Your task to perform on an android device: Open Google Maps and go to "Timeline" Image 0: 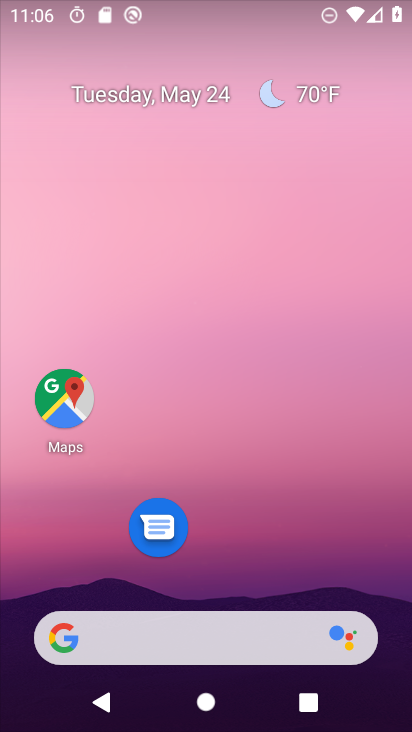
Step 0: drag from (263, 557) to (225, 186)
Your task to perform on an android device: Open Google Maps and go to "Timeline" Image 1: 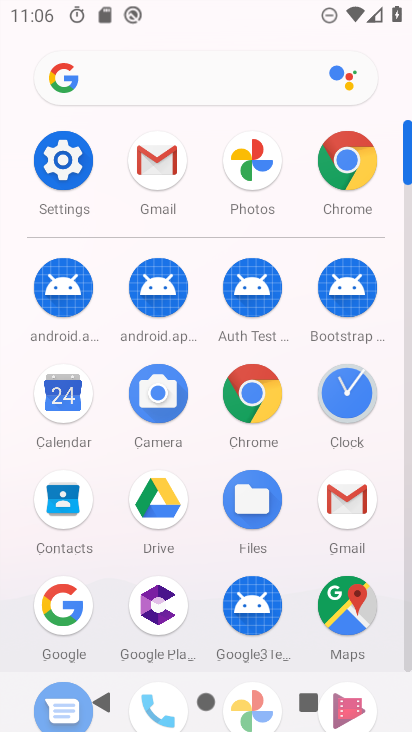
Step 1: click (360, 621)
Your task to perform on an android device: Open Google Maps and go to "Timeline" Image 2: 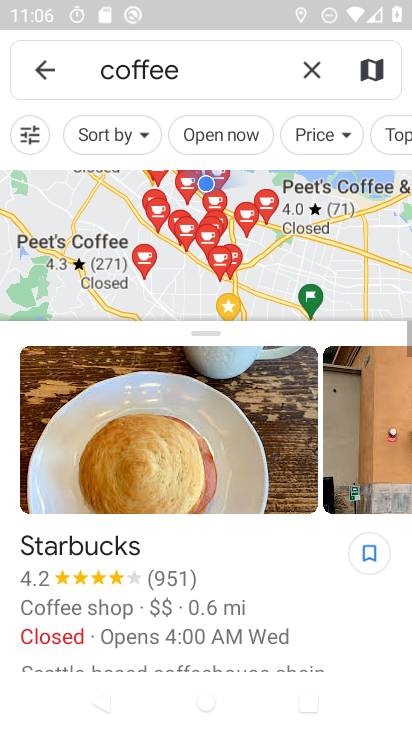
Step 2: click (299, 75)
Your task to perform on an android device: Open Google Maps and go to "Timeline" Image 3: 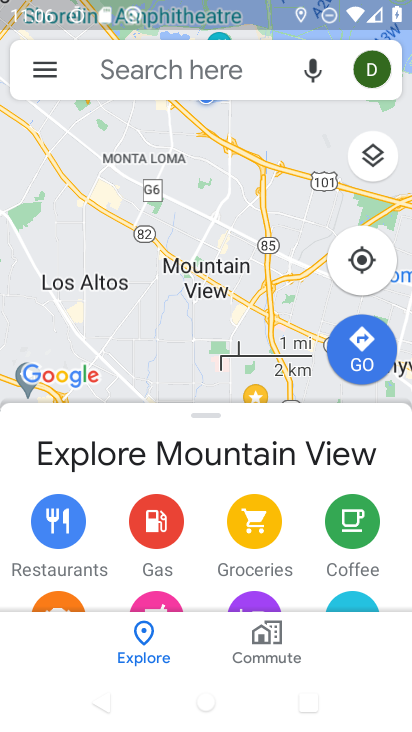
Step 3: click (52, 71)
Your task to perform on an android device: Open Google Maps and go to "Timeline" Image 4: 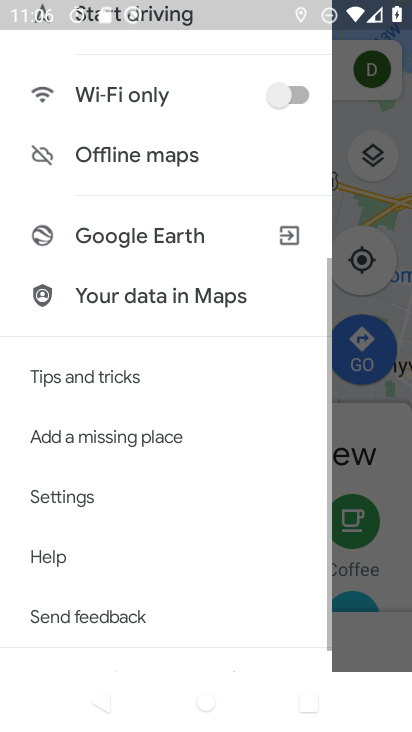
Step 4: drag from (97, 185) to (103, 568)
Your task to perform on an android device: Open Google Maps and go to "Timeline" Image 5: 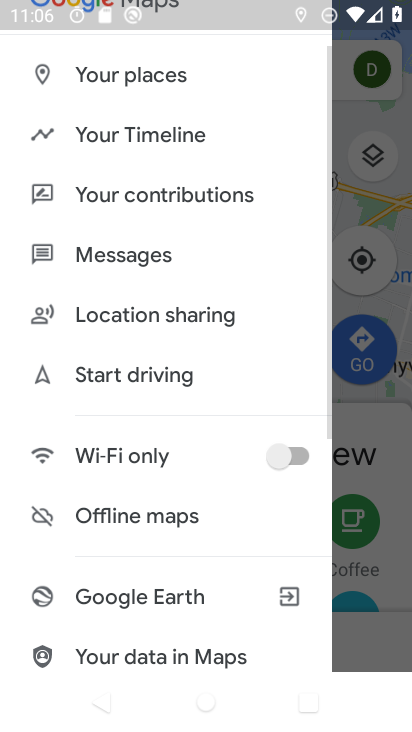
Step 5: click (143, 134)
Your task to perform on an android device: Open Google Maps and go to "Timeline" Image 6: 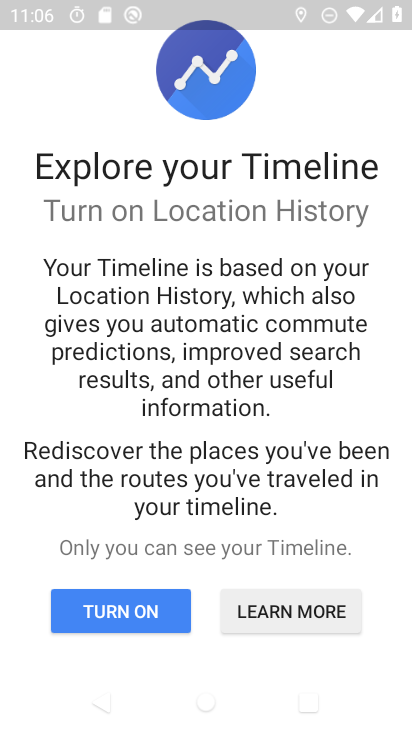
Step 6: drag from (241, 627) to (228, 364)
Your task to perform on an android device: Open Google Maps and go to "Timeline" Image 7: 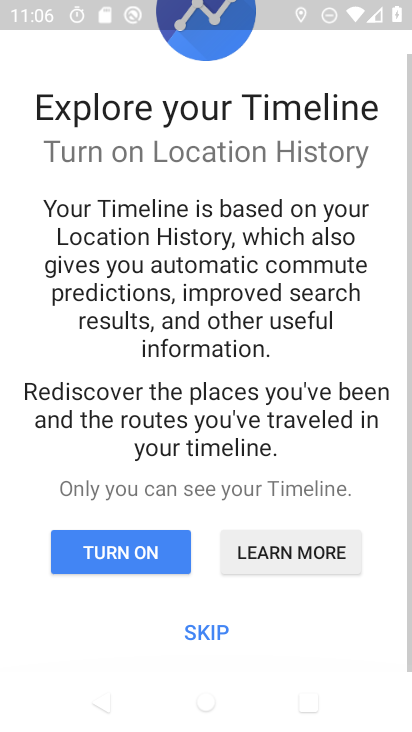
Step 7: click (204, 625)
Your task to perform on an android device: Open Google Maps and go to "Timeline" Image 8: 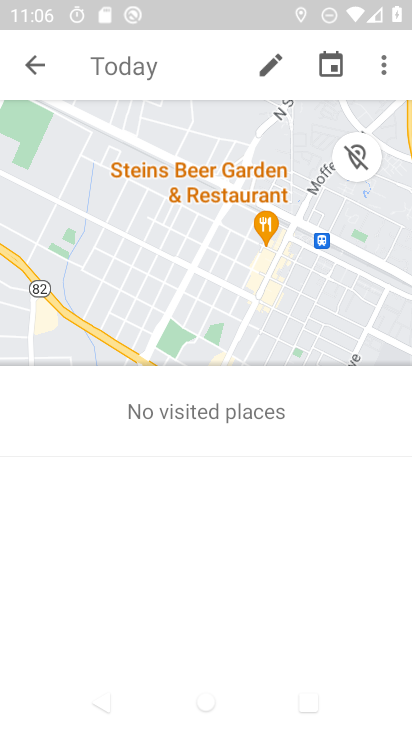
Step 8: task complete